Your task to perform on an android device: turn pop-ups off in chrome Image 0: 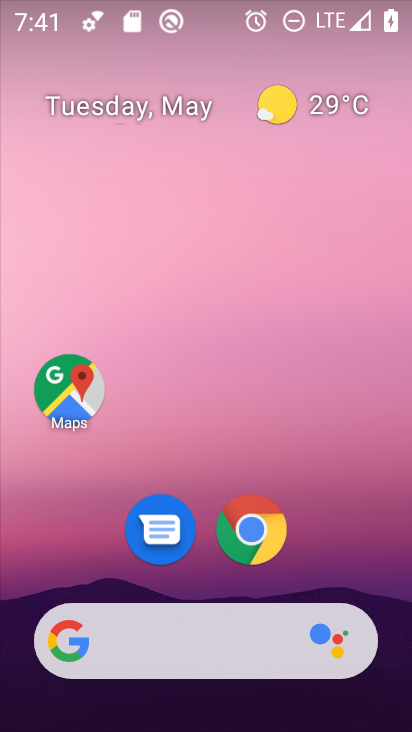
Step 0: drag from (394, 628) to (340, 27)
Your task to perform on an android device: turn pop-ups off in chrome Image 1: 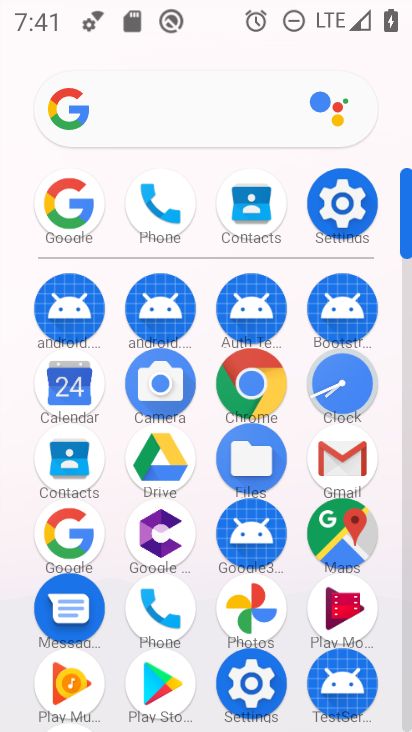
Step 1: click (244, 385)
Your task to perform on an android device: turn pop-ups off in chrome Image 2: 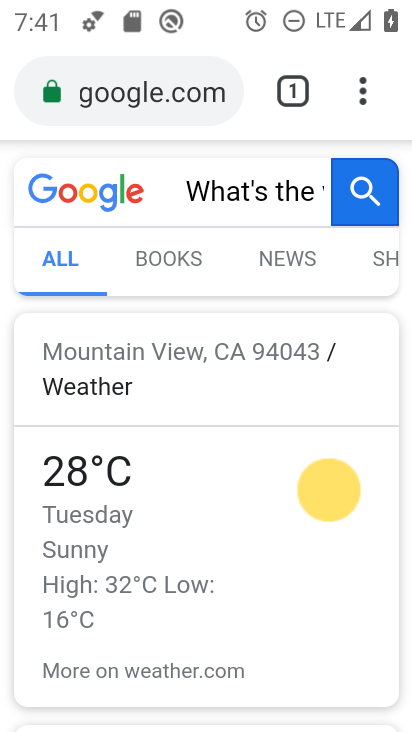
Step 2: press back button
Your task to perform on an android device: turn pop-ups off in chrome Image 3: 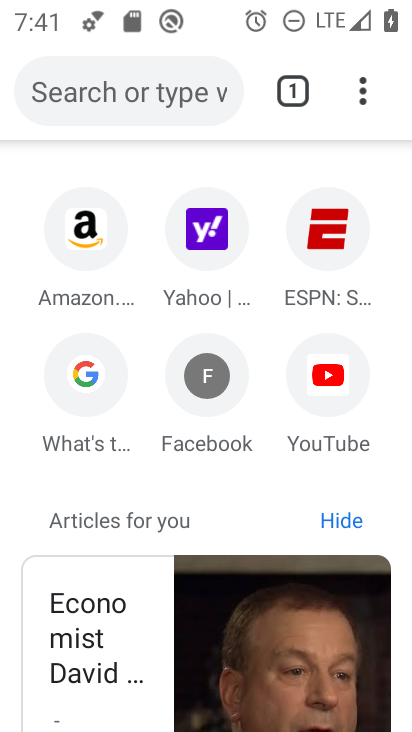
Step 3: click (356, 89)
Your task to perform on an android device: turn pop-ups off in chrome Image 4: 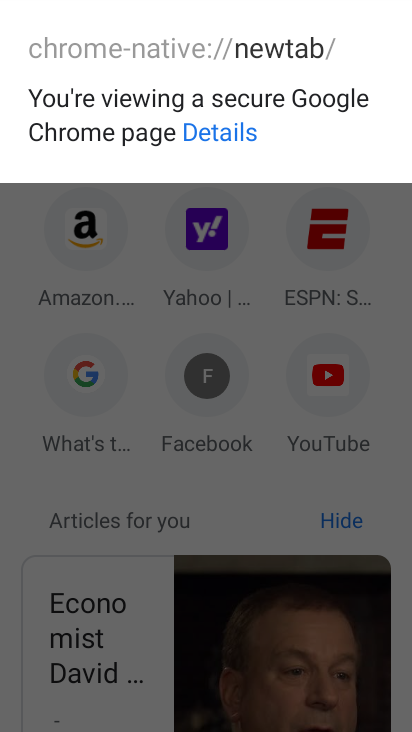
Step 4: press back button
Your task to perform on an android device: turn pop-ups off in chrome Image 5: 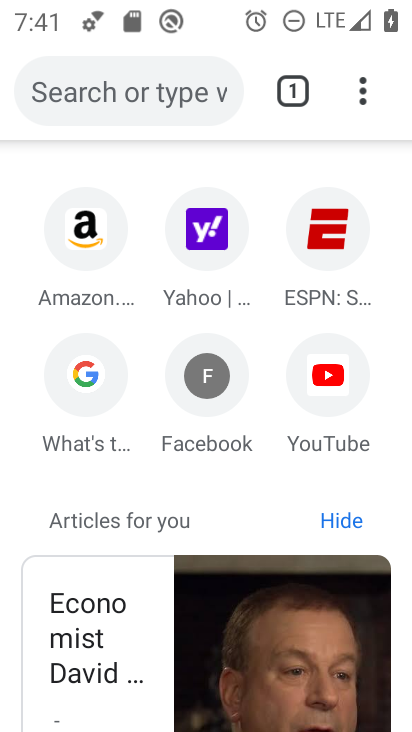
Step 5: click (360, 90)
Your task to perform on an android device: turn pop-ups off in chrome Image 6: 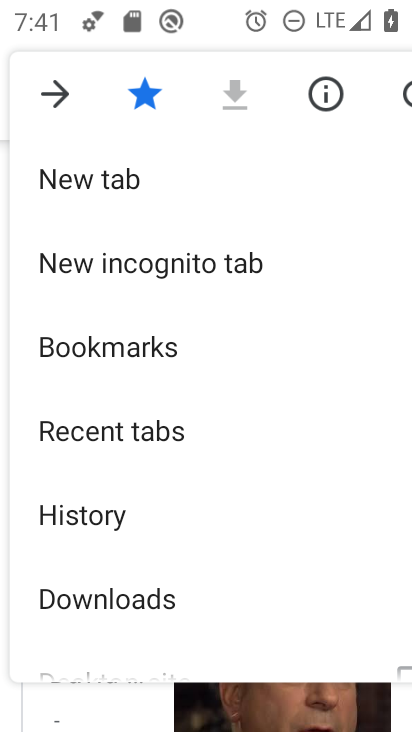
Step 6: drag from (162, 653) to (201, 86)
Your task to perform on an android device: turn pop-ups off in chrome Image 7: 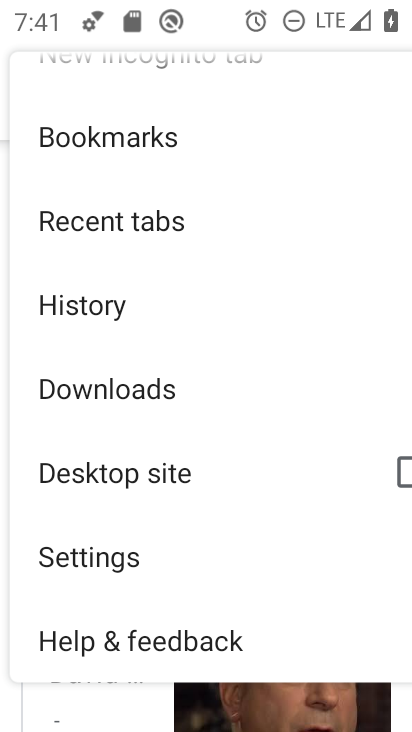
Step 7: click (135, 574)
Your task to perform on an android device: turn pop-ups off in chrome Image 8: 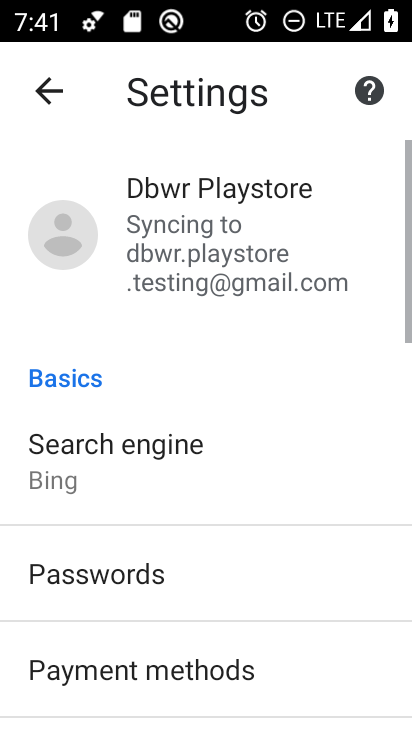
Step 8: drag from (135, 574) to (164, 91)
Your task to perform on an android device: turn pop-ups off in chrome Image 9: 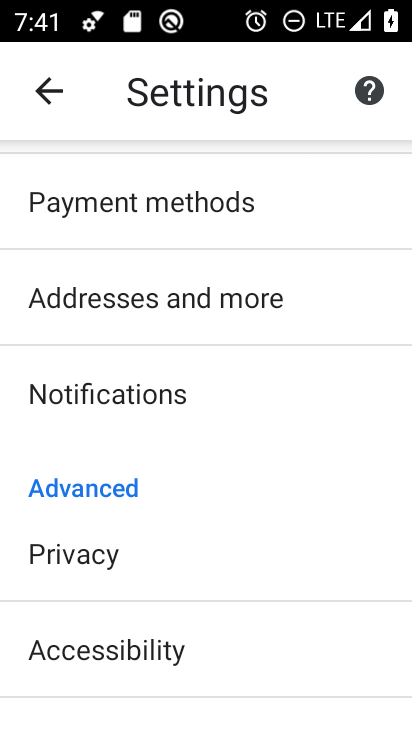
Step 9: drag from (150, 658) to (147, 191)
Your task to perform on an android device: turn pop-ups off in chrome Image 10: 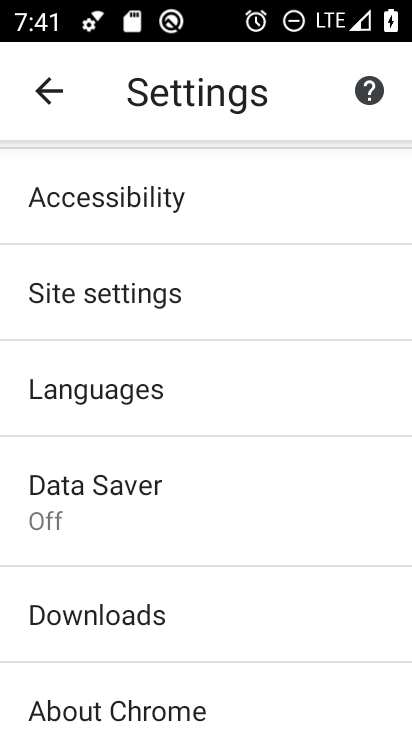
Step 10: click (205, 285)
Your task to perform on an android device: turn pop-ups off in chrome Image 11: 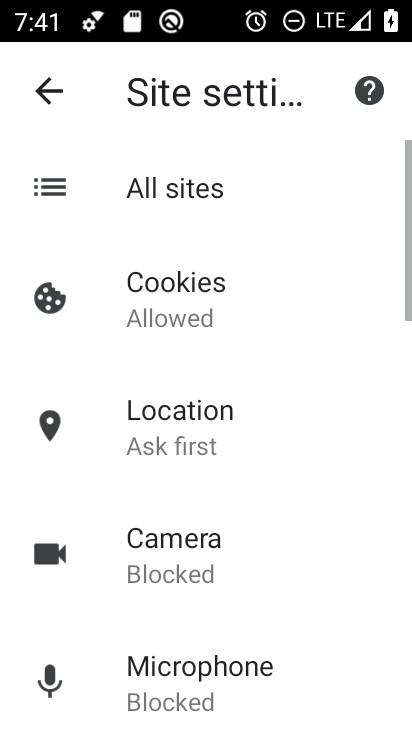
Step 11: drag from (227, 678) to (220, 185)
Your task to perform on an android device: turn pop-ups off in chrome Image 12: 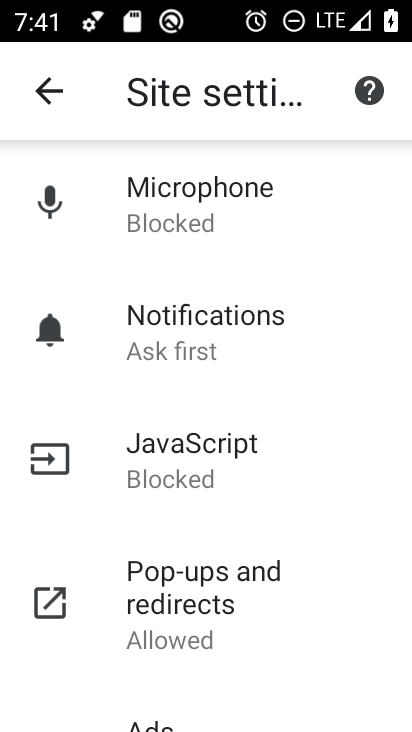
Step 12: click (216, 602)
Your task to perform on an android device: turn pop-ups off in chrome Image 13: 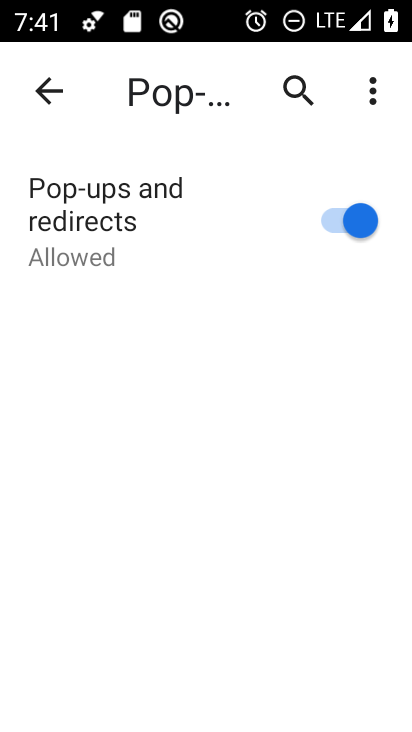
Step 13: click (238, 248)
Your task to perform on an android device: turn pop-ups off in chrome Image 14: 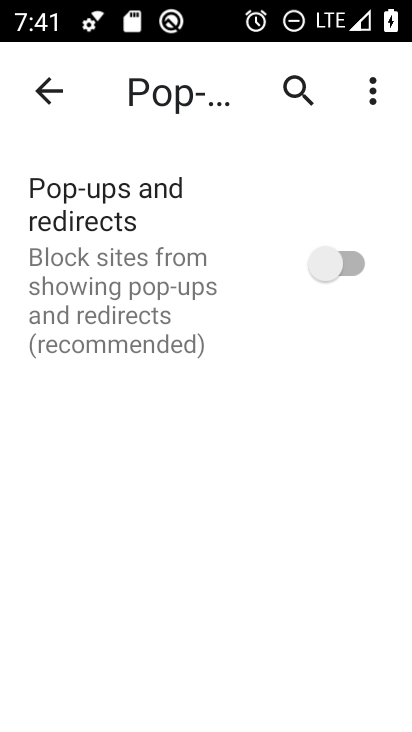
Step 14: task complete